Your task to perform on an android device: Is it going to rain today? Image 0: 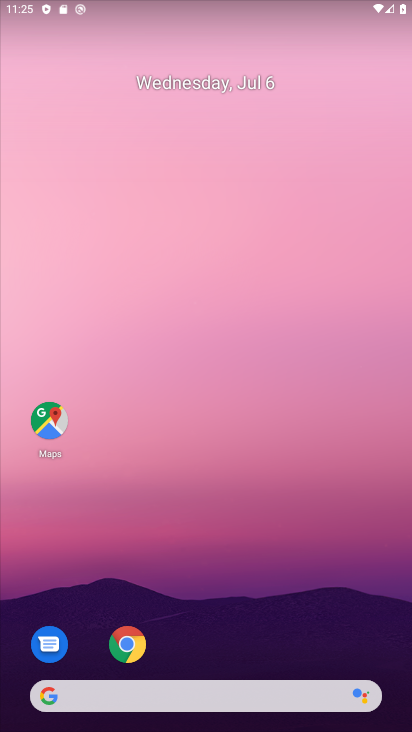
Step 0: drag from (173, 691) to (145, 145)
Your task to perform on an android device: Is it going to rain today? Image 1: 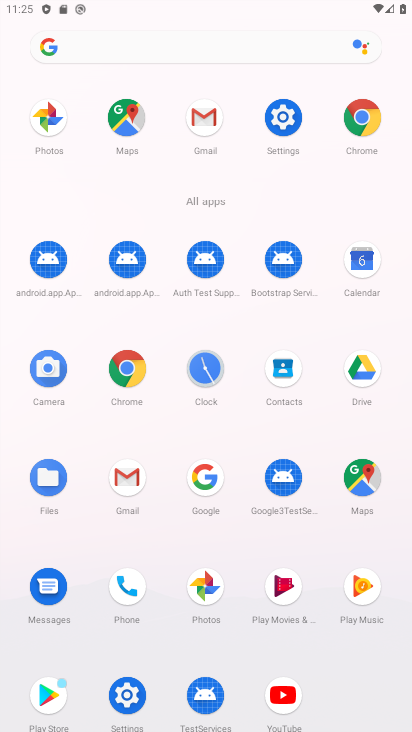
Step 1: click (125, 378)
Your task to perform on an android device: Is it going to rain today? Image 2: 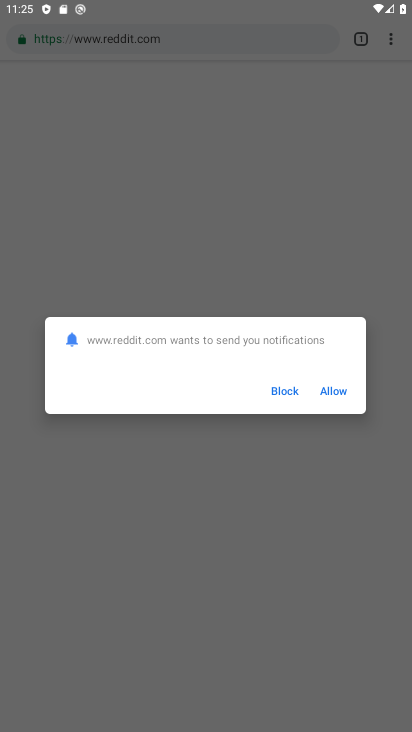
Step 2: click (334, 392)
Your task to perform on an android device: Is it going to rain today? Image 3: 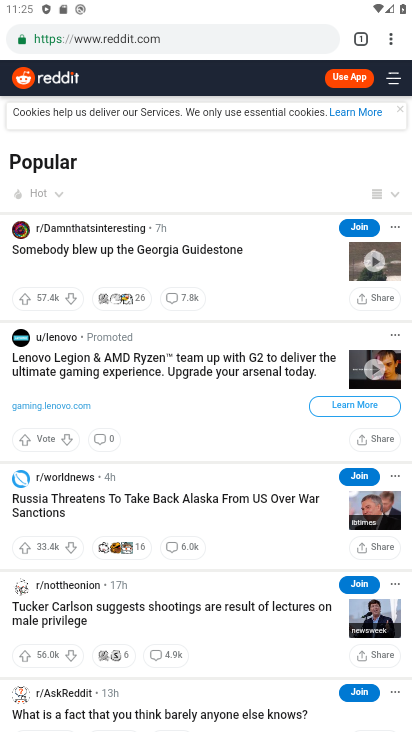
Step 3: click (180, 44)
Your task to perform on an android device: Is it going to rain today? Image 4: 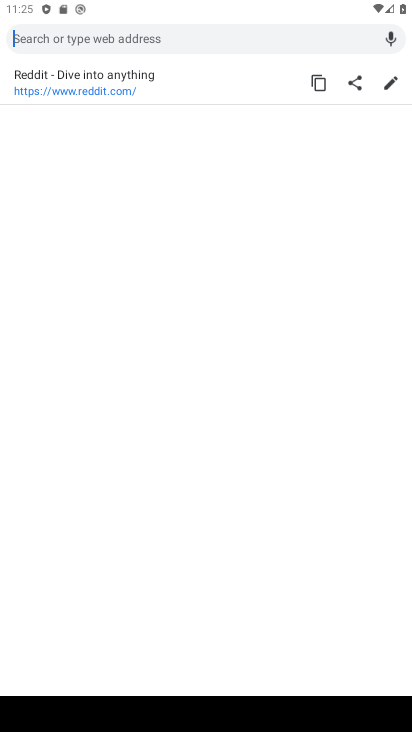
Step 4: type "weather today"
Your task to perform on an android device: Is it going to rain today? Image 5: 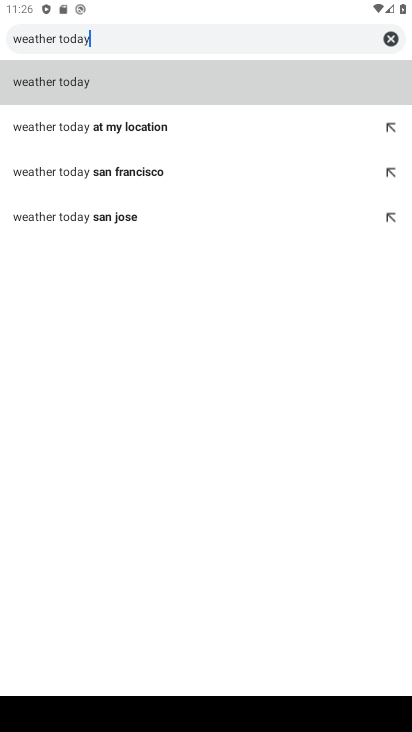
Step 5: click (163, 92)
Your task to perform on an android device: Is it going to rain today? Image 6: 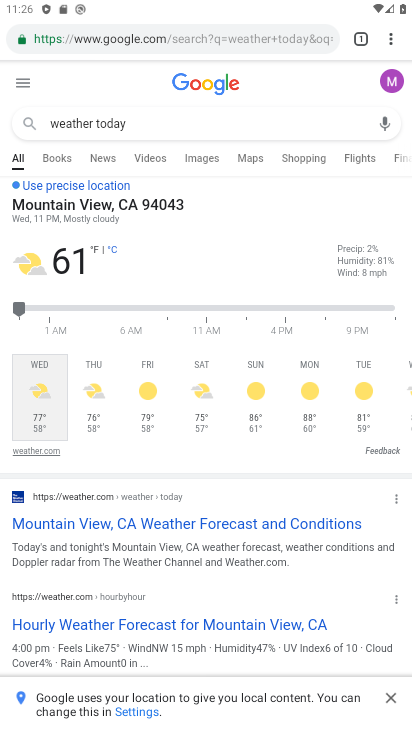
Step 6: task complete